Your task to perform on an android device: turn on the 24-hour format for clock Image 0: 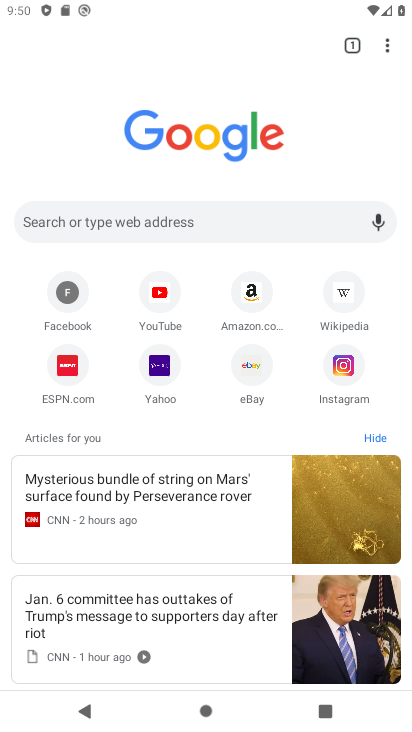
Step 0: press home button
Your task to perform on an android device: turn on the 24-hour format for clock Image 1: 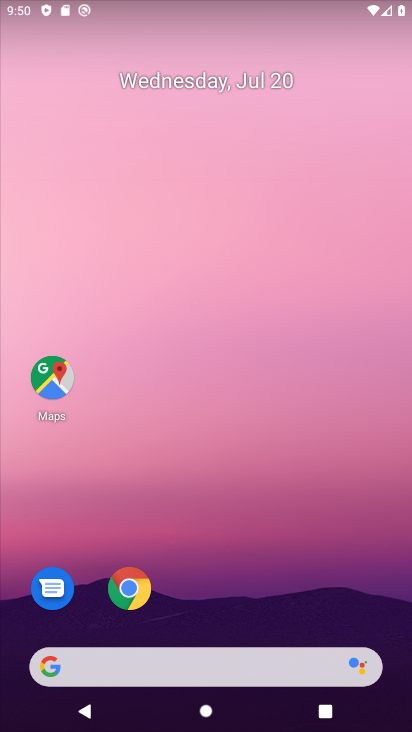
Step 1: drag from (366, 595) to (319, 55)
Your task to perform on an android device: turn on the 24-hour format for clock Image 2: 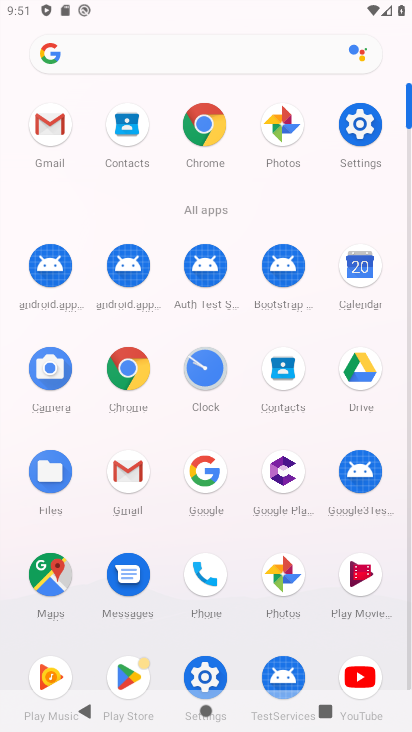
Step 2: click (203, 369)
Your task to perform on an android device: turn on the 24-hour format for clock Image 3: 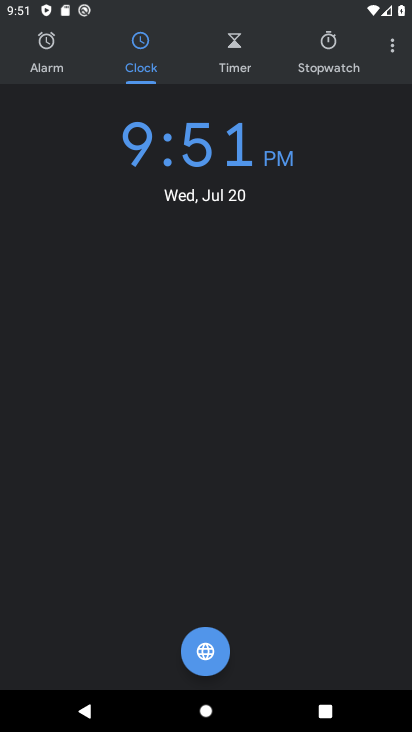
Step 3: click (391, 50)
Your task to perform on an android device: turn on the 24-hour format for clock Image 4: 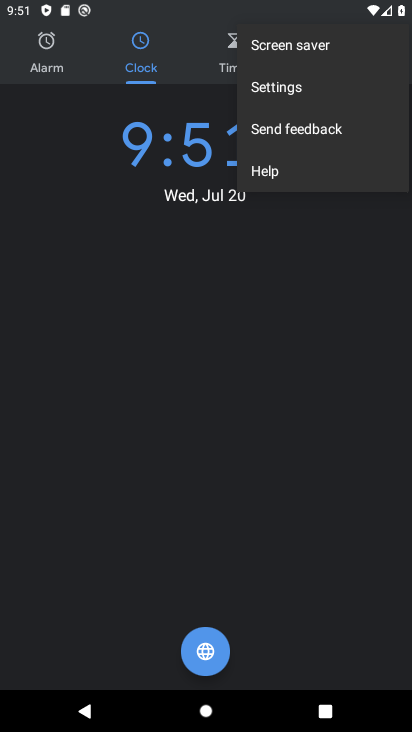
Step 4: click (279, 83)
Your task to perform on an android device: turn on the 24-hour format for clock Image 5: 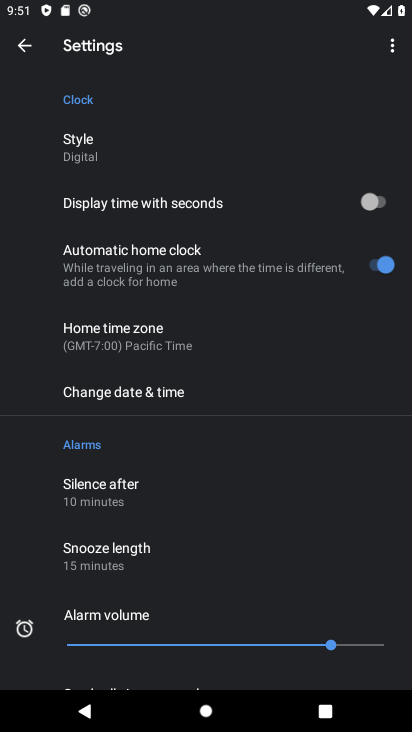
Step 5: click (136, 390)
Your task to perform on an android device: turn on the 24-hour format for clock Image 6: 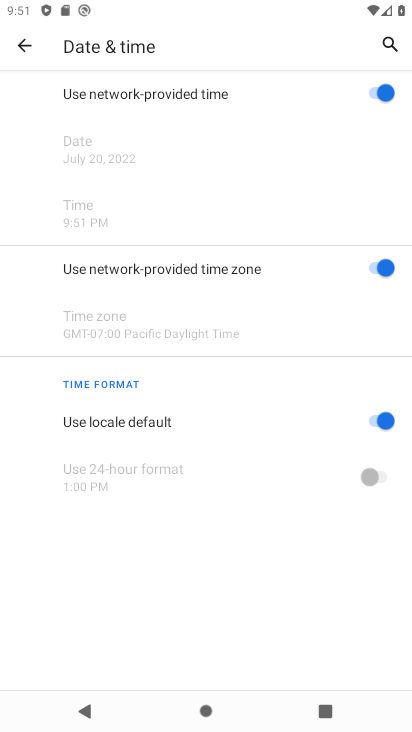
Step 6: click (373, 427)
Your task to perform on an android device: turn on the 24-hour format for clock Image 7: 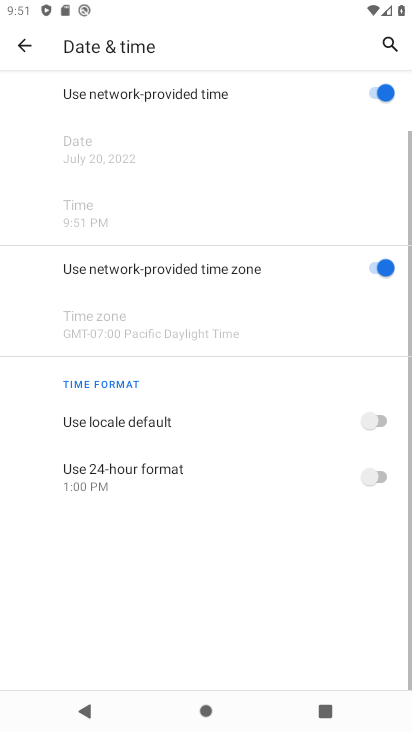
Step 7: click (384, 476)
Your task to perform on an android device: turn on the 24-hour format for clock Image 8: 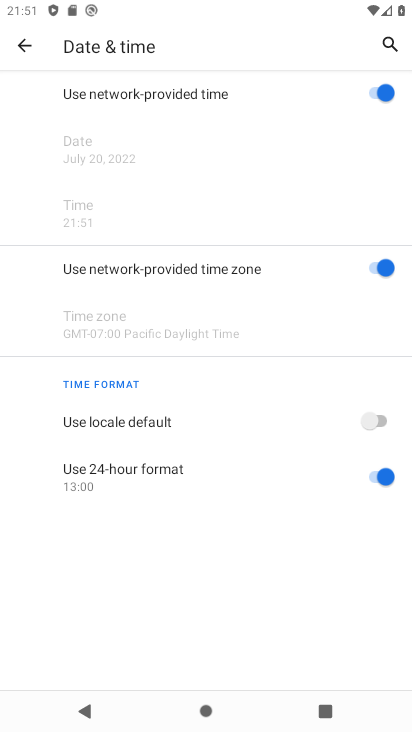
Step 8: task complete